Your task to perform on an android device: set the stopwatch Image 0: 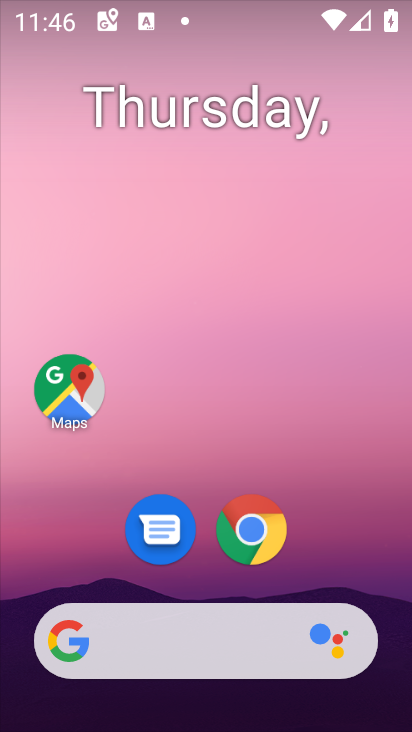
Step 0: drag from (238, 481) to (263, 149)
Your task to perform on an android device: set the stopwatch Image 1: 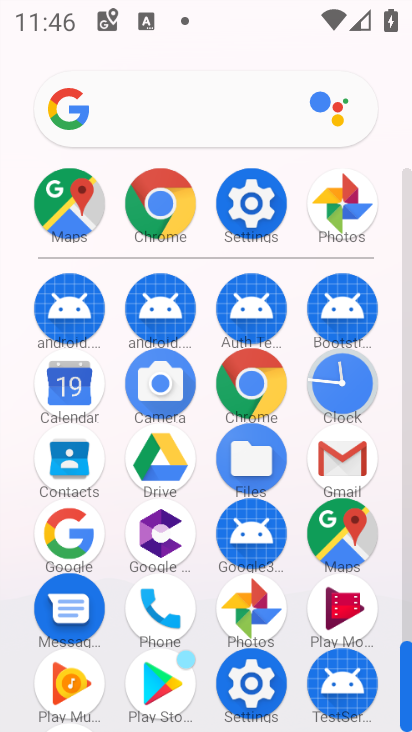
Step 1: click (354, 396)
Your task to perform on an android device: set the stopwatch Image 2: 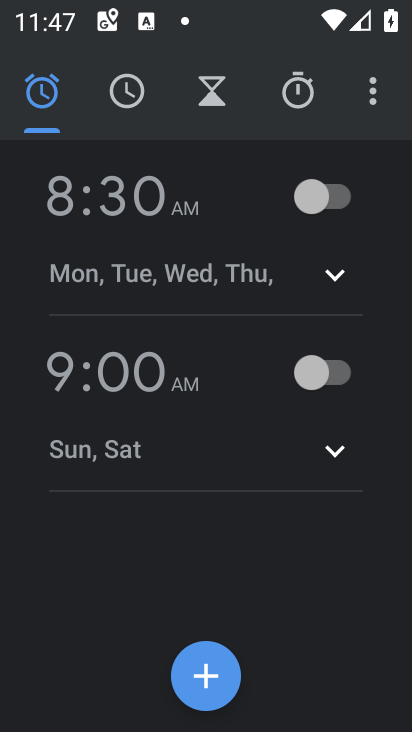
Step 2: click (287, 83)
Your task to perform on an android device: set the stopwatch Image 3: 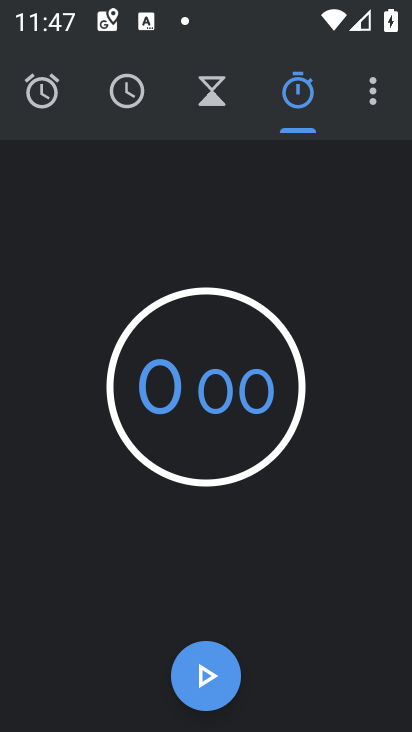
Step 3: click (207, 674)
Your task to perform on an android device: set the stopwatch Image 4: 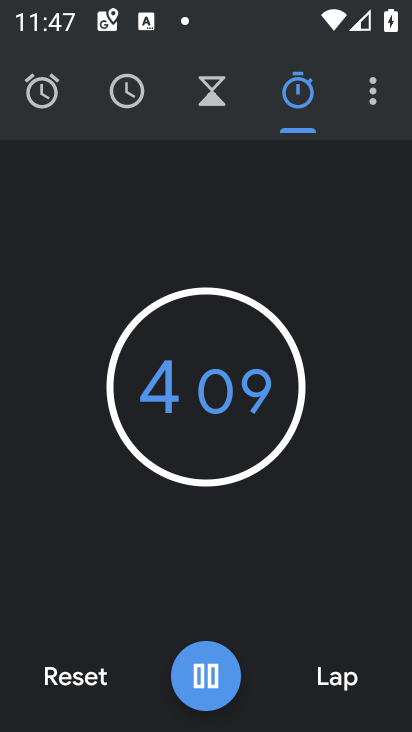
Step 4: task complete